Your task to perform on an android device: Do I have any events tomorrow? Image 0: 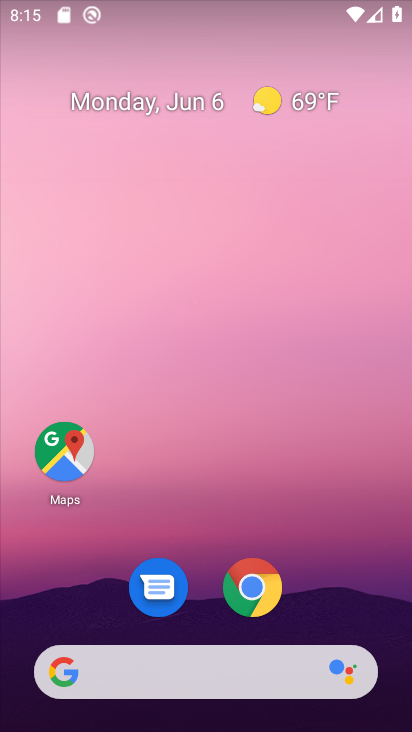
Step 0: drag from (335, 583) to (315, 141)
Your task to perform on an android device: Do I have any events tomorrow? Image 1: 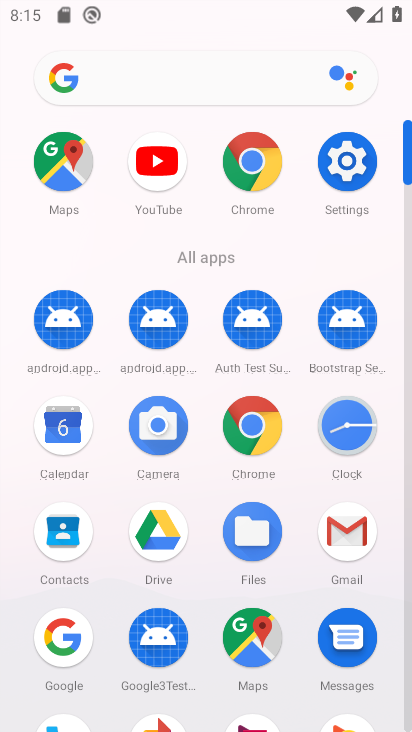
Step 1: click (58, 446)
Your task to perform on an android device: Do I have any events tomorrow? Image 2: 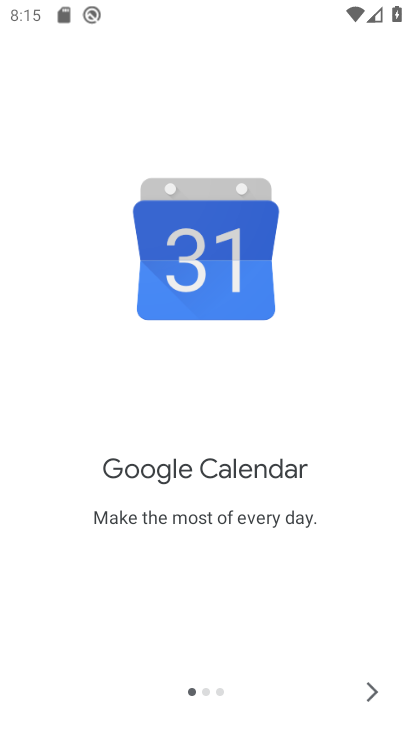
Step 2: click (381, 678)
Your task to perform on an android device: Do I have any events tomorrow? Image 3: 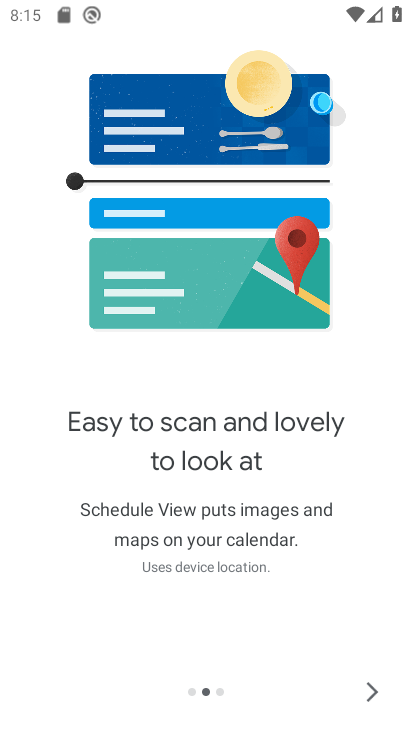
Step 3: click (381, 678)
Your task to perform on an android device: Do I have any events tomorrow? Image 4: 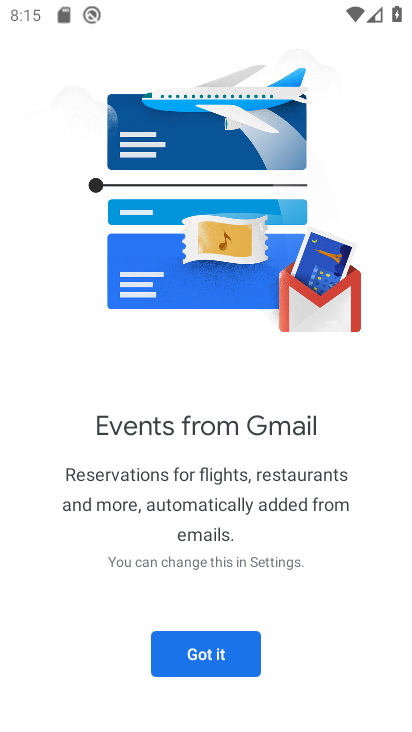
Step 4: click (177, 632)
Your task to perform on an android device: Do I have any events tomorrow? Image 5: 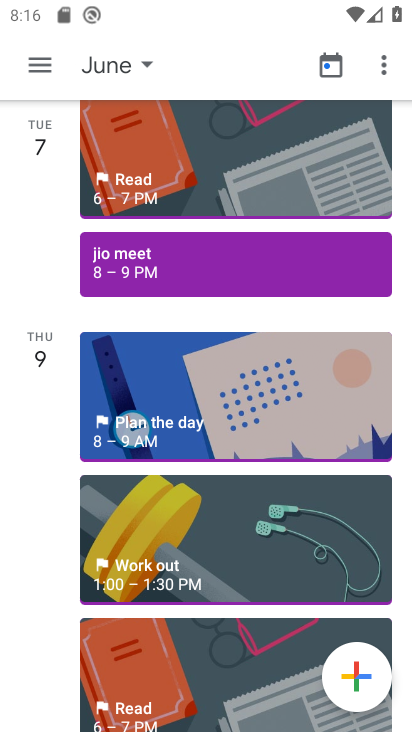
Step 5: task complete